Your task to perform on an android device: Go to settings Image 0: 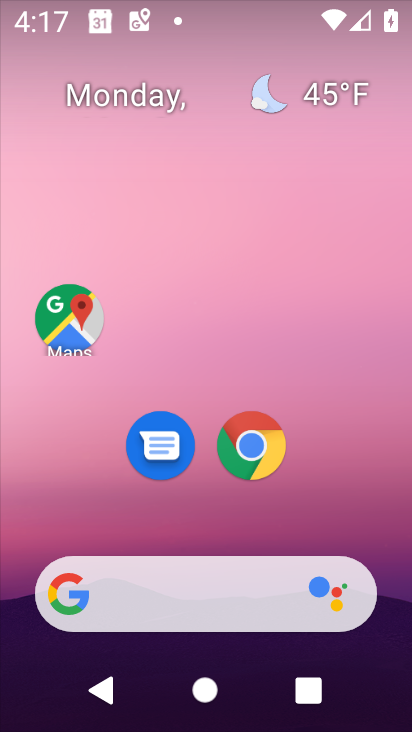
Step 0: drag from (298, 534) to (313, 11)
Your task to perform on an android device: Go to settings Image 1: 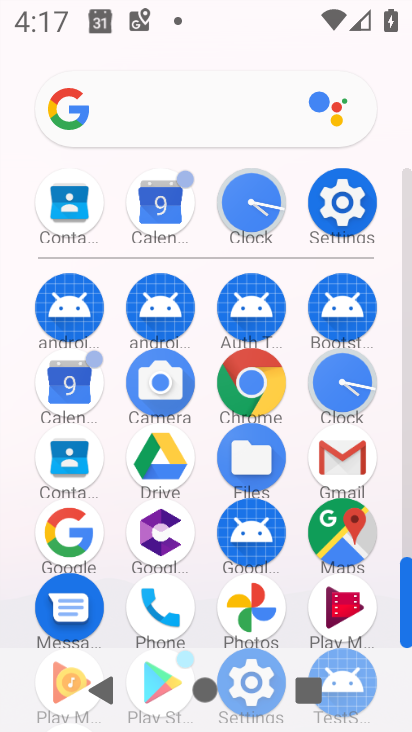
Step 1: click (355, 181)
Your task to perform on an android device: Go to settings Image 2: 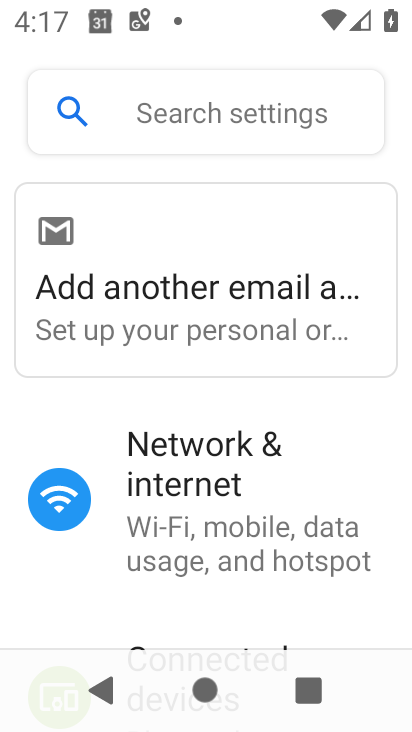
Step 2: task complete